Your task to perform on an android device: Is it going to rain this weekend? Image 0: 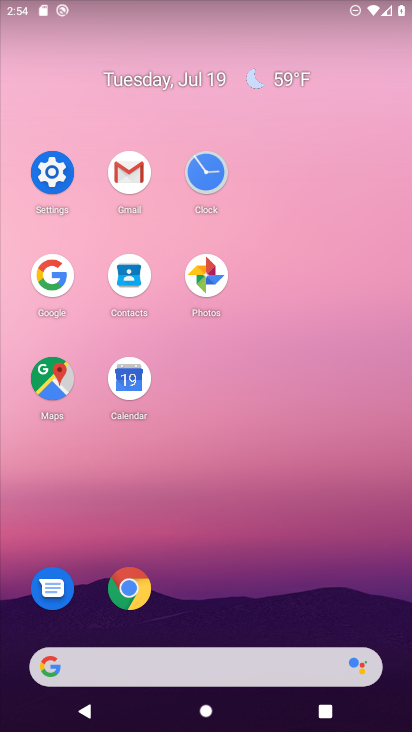
Step 0: click (64, 290)
Your task to perform on an android device: Is it going to rain this weekend? Image 1: 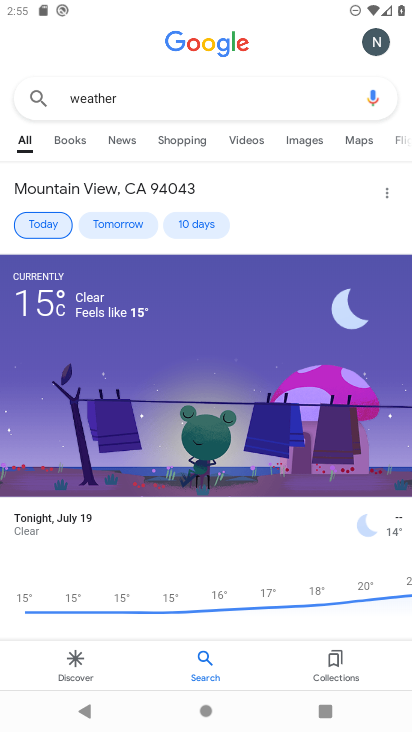
Step 1: click (206, 221)
Your task to perform on an android device: Is it going to rain this weekend? Image 2: 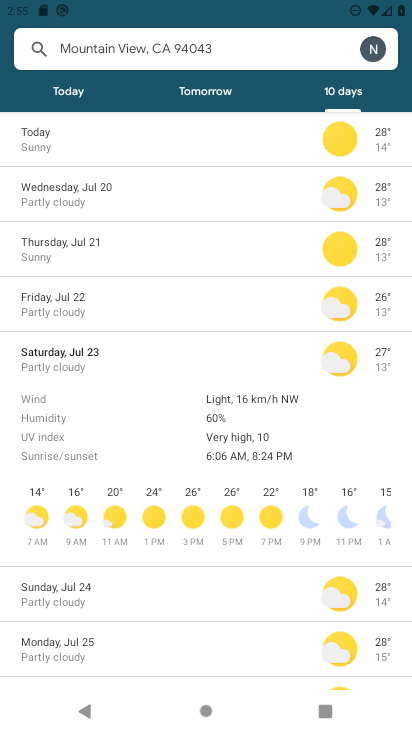
Step 2: task complete